Your task to perform on an android device: turn off sleep mode Image 0: 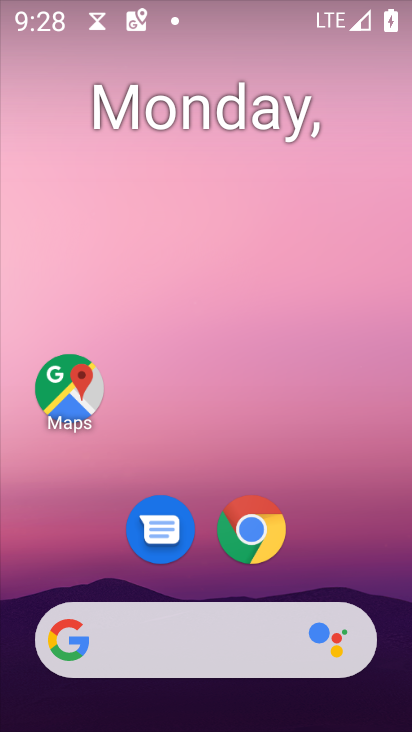
Step 0: drag from (291, 716) to (245, 107)
Your task to perform on an android device: turn off sleep mode Image 1: 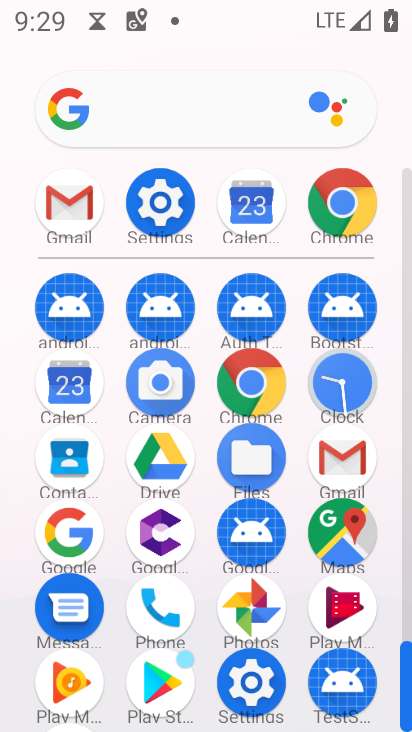
Step 1: click (148, 204)
Your task to perform on an android device: turn off sleep mode Image 2: 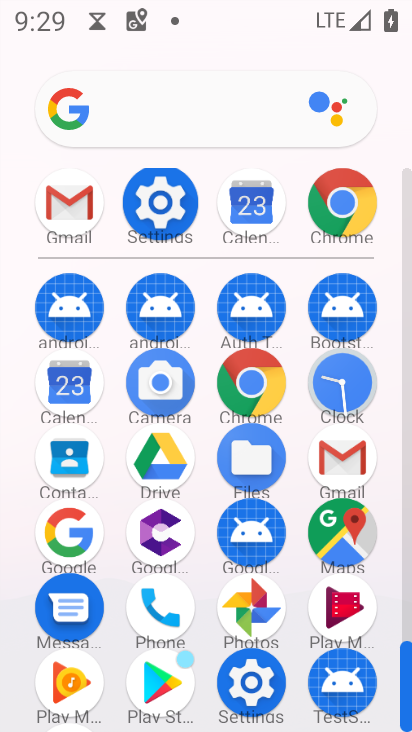
Step 2: click (151, 205)
Your task to perform on an android device: turn off sleep mode Image 3: 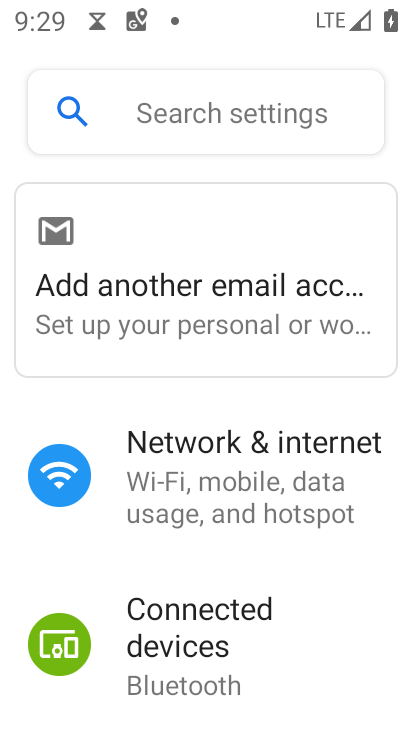
Step 3: drag from (210, 662) to (207, 248)
Your task to perform on an android device: turn off sleep mode Image 4: 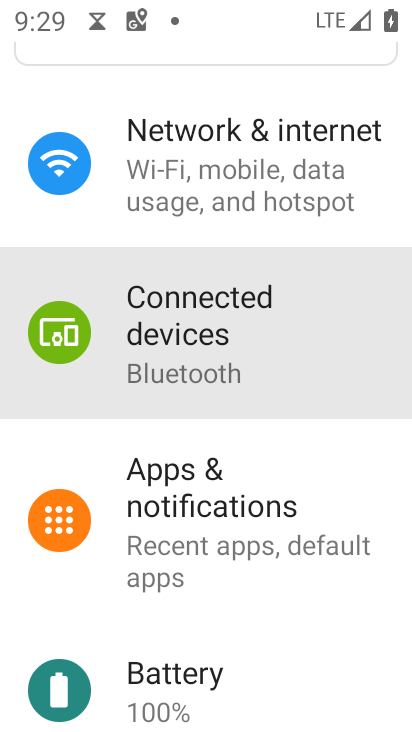
Step 4: drag from (242, 599) to (256, 297)
Your task to perform on an android device: turn off sleep mode Image 5: 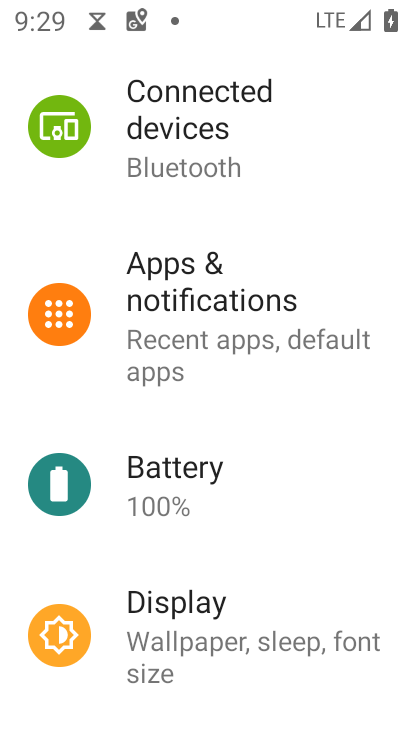
Step 5: drag from (237, 583) to (154, 165)
Your task to perform on an android device: turn off sleep mode Image 6: 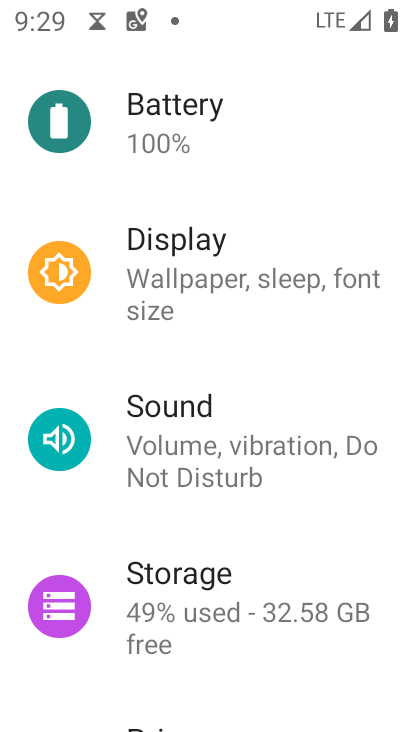
Step 6: drag from (182, 457) to (171, 110)
Your task to perform on an android device: turn off sleep mode Image 7: 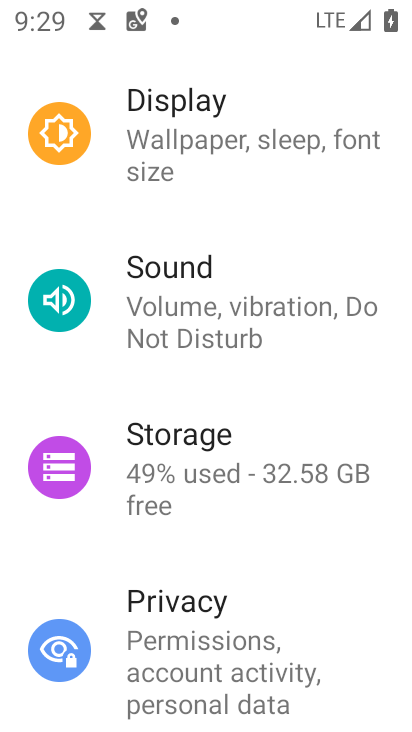
Step 7: drag from (203, 582) to (204, 204)
Your task to perform on an android device: turn off sleep mode Image 8: 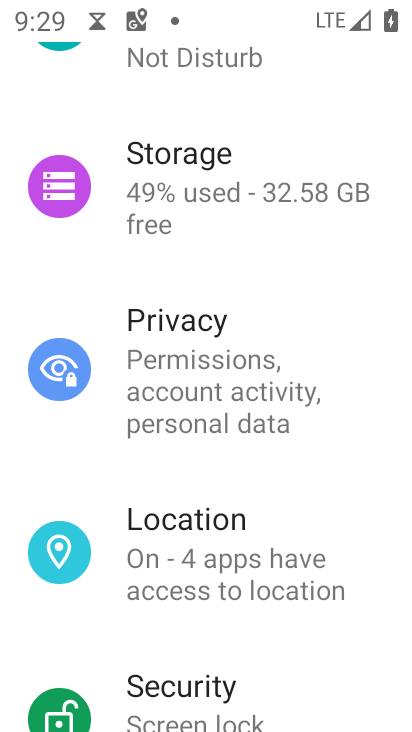
Step 8: drag from (150, 503) to (211, 206)
Your task to perform on an android device: turn off sleep mode Image 9: 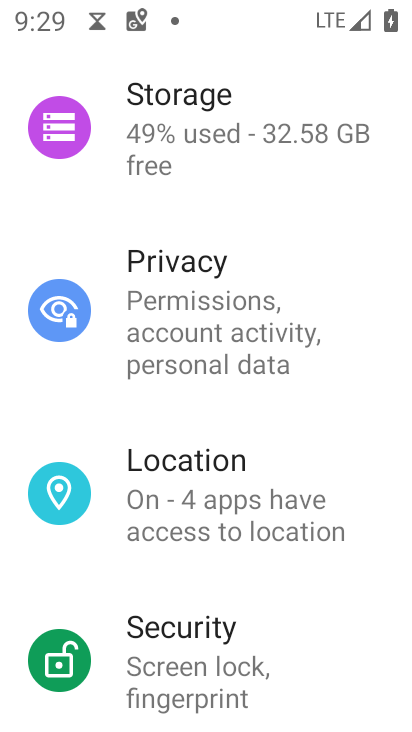
Step 9: drag from (212, 636) to (233, 117)
Your task to perform on an android device: turn off sleep mode Image 10: 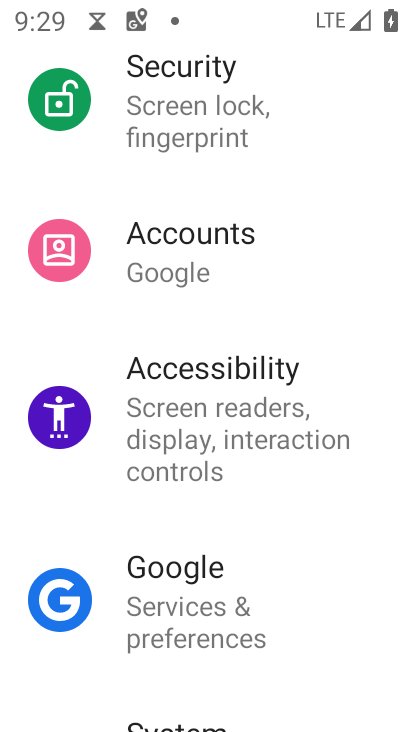
Step 10: drag from (242, 458) to (202, 108)
Your task to perform on an android device: turn off sleep mode Image 11: 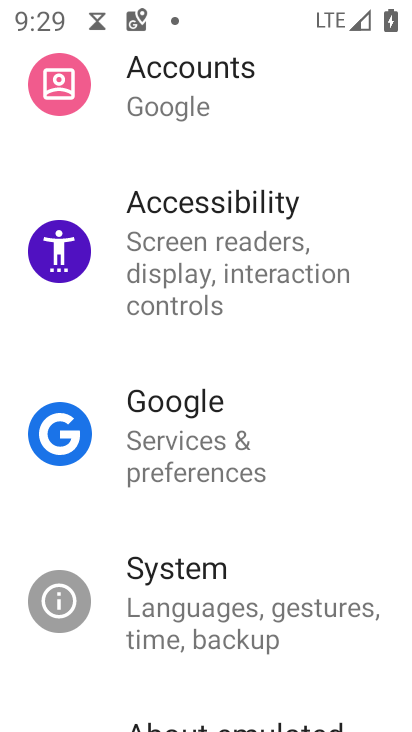
Step 11: drag from (268, 483) to (222, 144)
Your task to perform on an android device: turn off sleep mode Image 12: 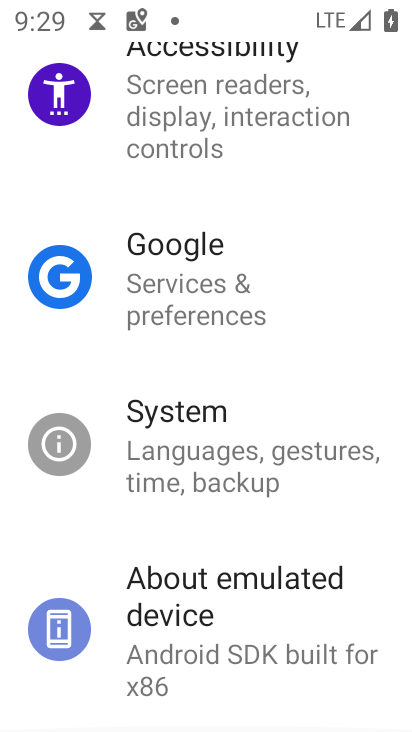
Step 12: drag from (219, 530) to (197, 289)
Your task to perform on an android device: turn off sleep mode Image 13: 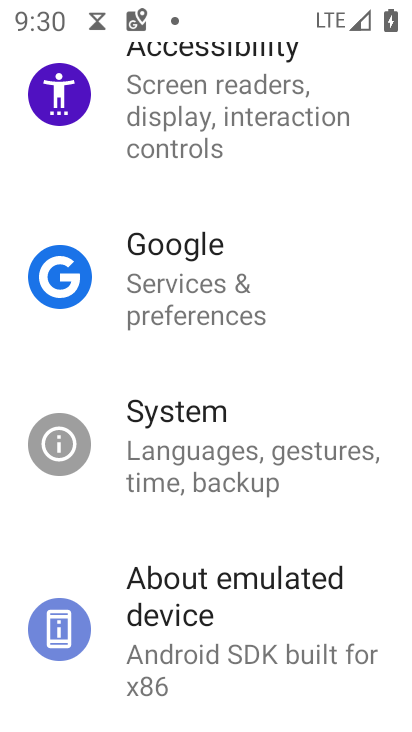
Step 13: drag from (201, 131) to (105, 475)
Your task to perform on an android device: turn off sleep mode Image 14: 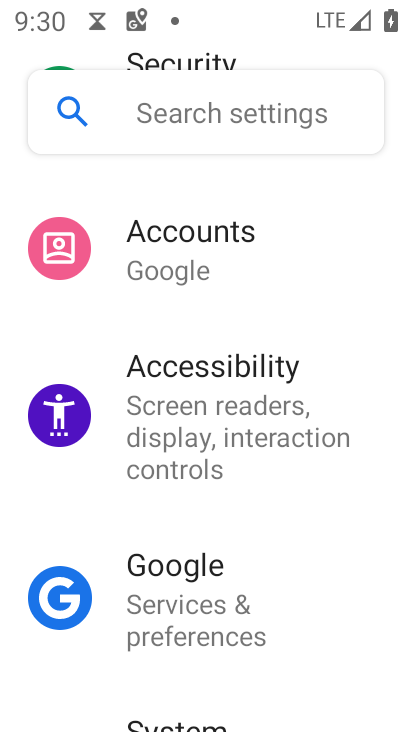
Step 14: drag from (133, 300) to (145, 479)
Your task to perform on an android device: turn off sleep mode Image 15: 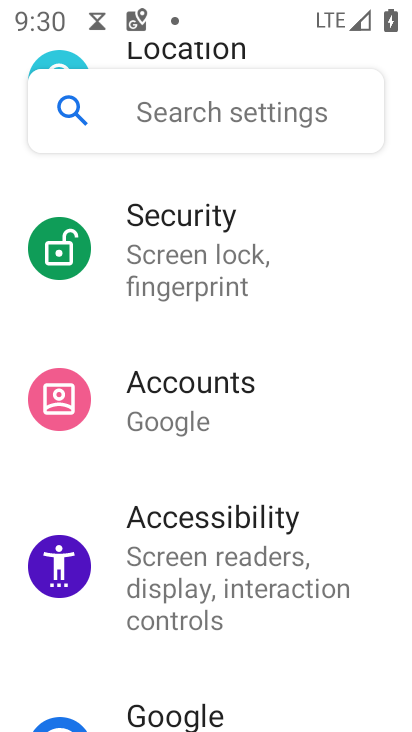
Step 15: drag from (202, 182) to (181, 550)
Your task to perform on an android device: turn off sleep mode Image 16: 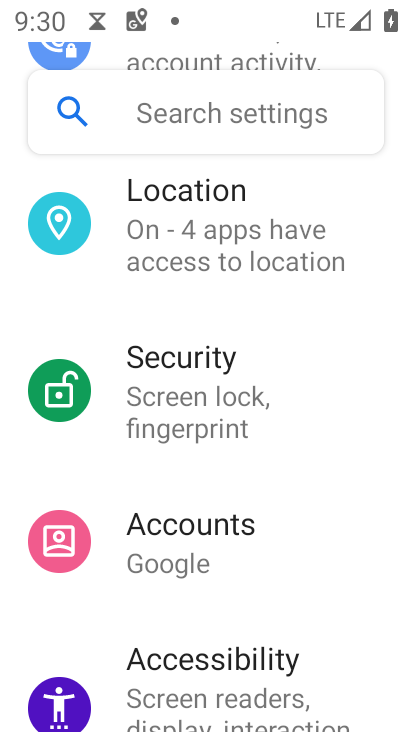
Step 16: drag from (168, 248) to (232, 541)
Your task to perform on an android device: turn off sleep mode Image 17: 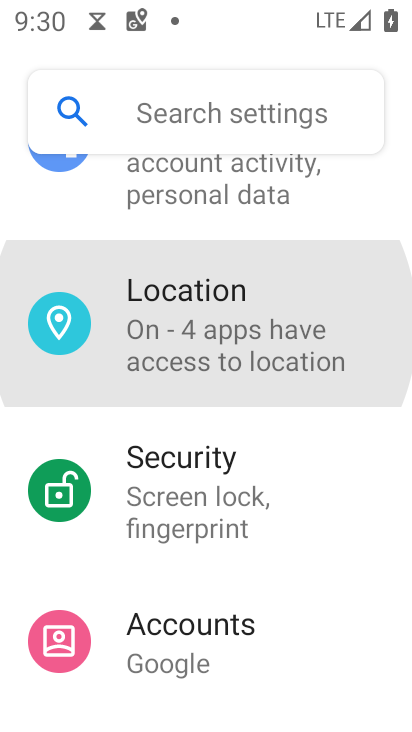
Step 17: drag from (219, 366) to (214, 608)
Your task to perform on an android device: turn off sleep mode Image 18: 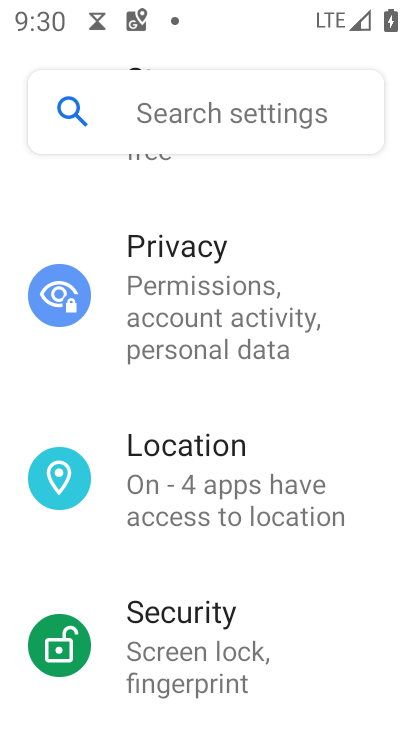
Step 18: drag from (130, 300) to (172, 648)
Your task to perform on an android device: turn off sleep mode Image 19: 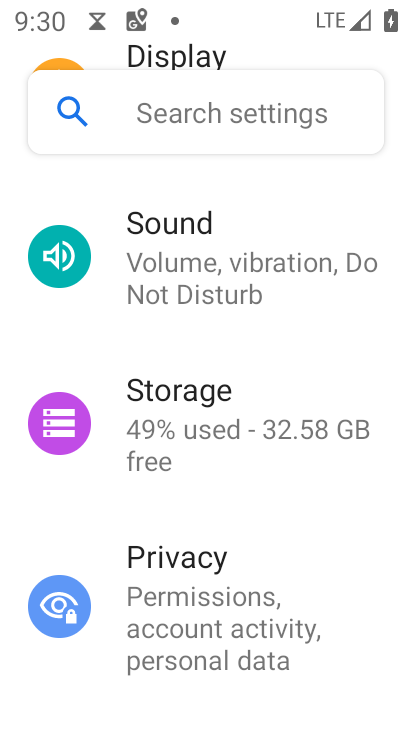
Step 19: drag from (126, 325) to (208, 580)
Your task to perform on an android device: turn off sleep mode Image 20: 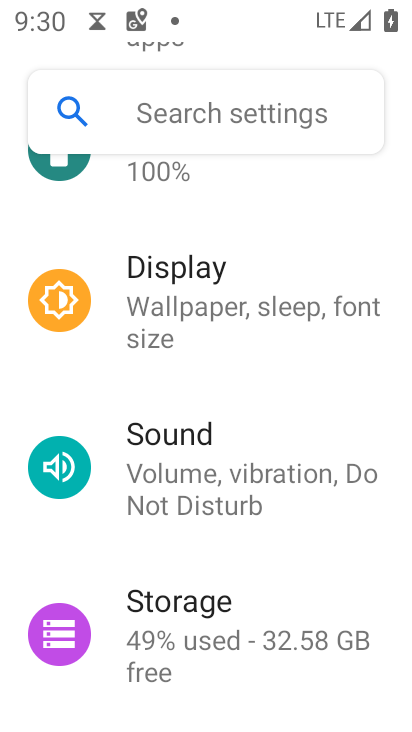
Step 20: drag from (158, 392) to (139, 705)
Your task to perform on an android device: turn off sleep mode Image 21: 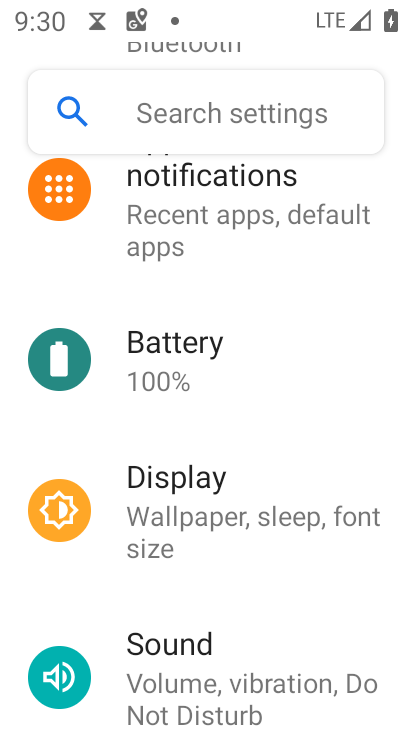
Step 21: drag from (245, 599) to (260, 261)
Your task to perform on an android device: turn off sleep mode Image 22: 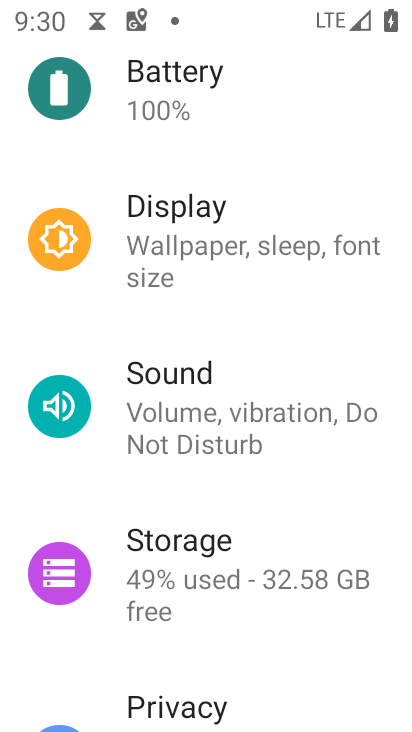
Step 22: drag from (257, 518) to (256, 133)
Your task to perform on an android device: turn off sleep mode Image 23: 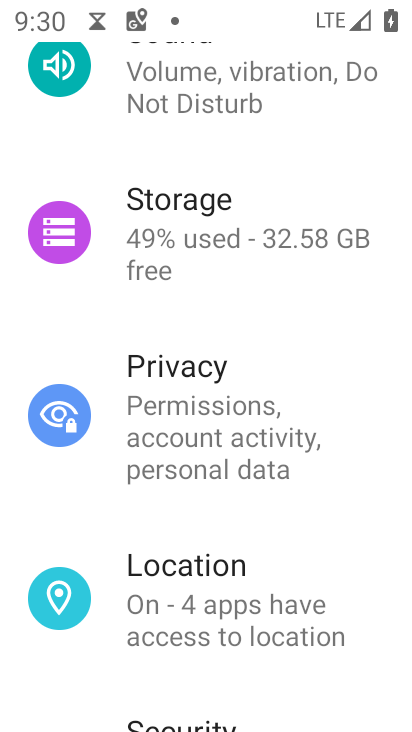
Step 23: drag from (176, 236) to (211, 491)
Your task to perform on an android device: turn off sleep mode Image 24: 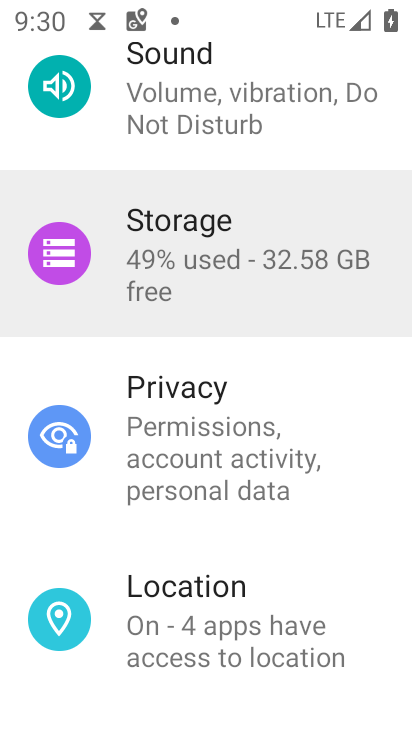
Step 24: drag from (189, 228) to (202, 703)
Your task to perform on an android device: turn off sleep mode Image 25: 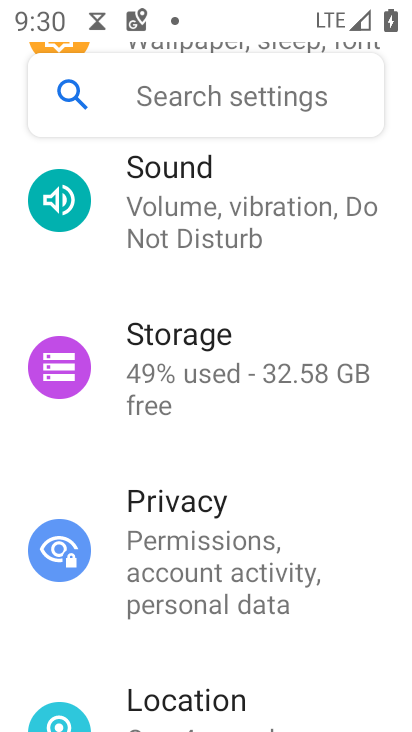
Step 25: drag from (194, 405) to (184, 566)
Your task to perform on an android device: turn off sleep mode Image 26: 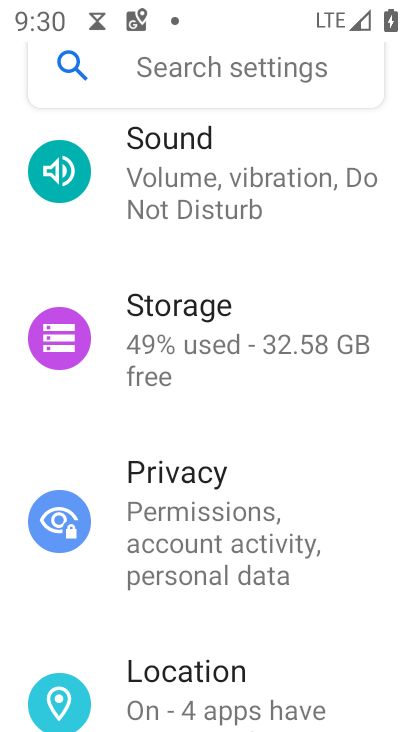
Step 26: drag from (207, 647) to (221, 251)
Your task to perform on an android device: turn off sleep mode Image 27: 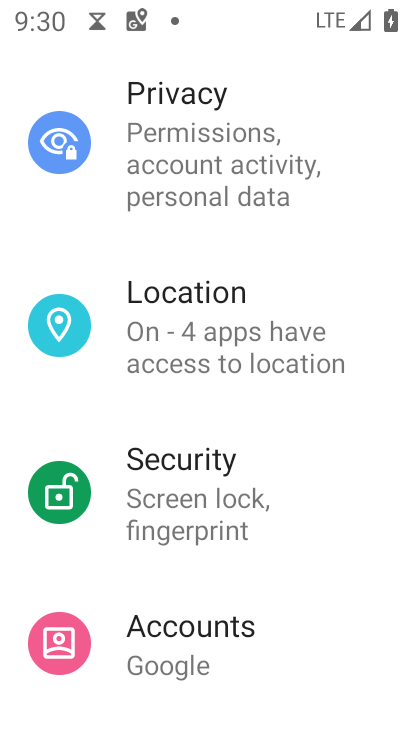
Step 27: drag from (261, 518) to (270, 195)
Your task to perform on an android device: turn off sleep mode Image 28: 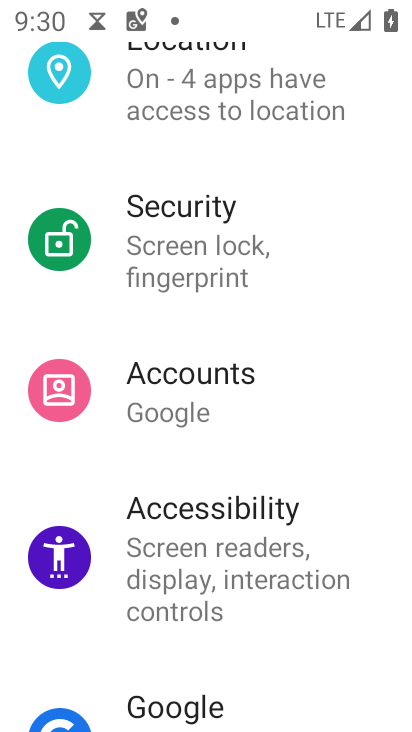
Step 28: drag from (216, 374) to (312, 77)
Your task to perform on an android device: turn off sleep mode Image 29: 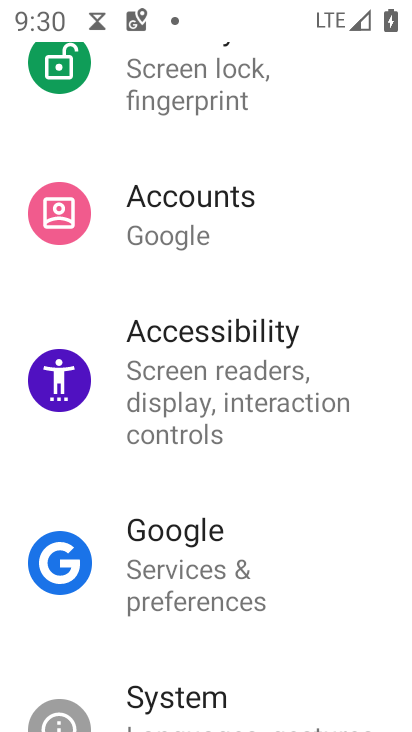
Step 29: drag from (205, 226) to (158, 694)
Your task to perform on an android device: turn off sleep mode Image 30: 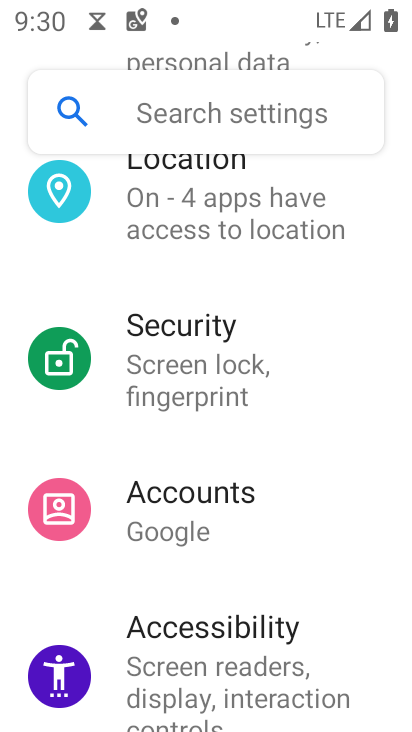
Step 30: drag from (232, 247) to (198, 601)
Your task to perform on an android device: turn off sleep mode Image 31: 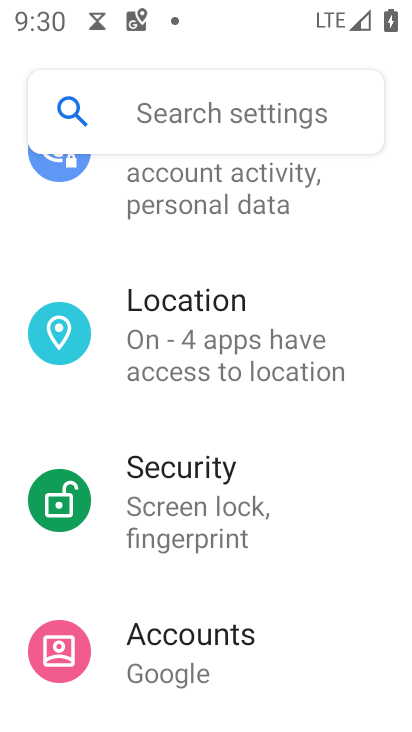
Step 31: drag from (149, 387) to (157, 554)
Your task to perform on an android device: turn off sleep mode Image 32: 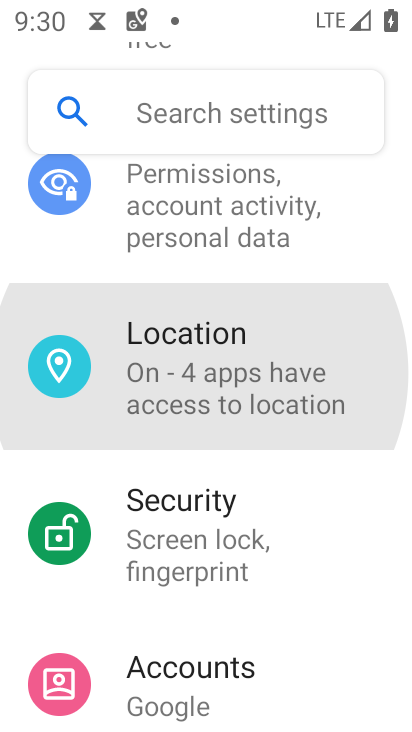
Step 32: drag from (160, 254) to (161, 656)
Your task to perform on an android device: turn off sleep mode Image 33: 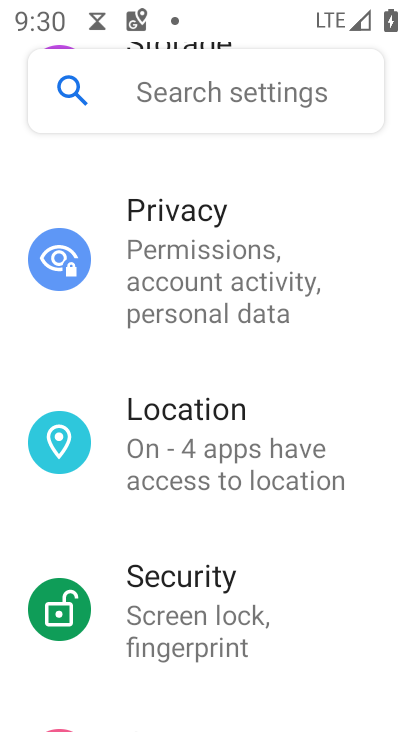
Step 33: drag from (171, 272) to (206, 576)
Your task to perform on an android device: turn off sleep mode Image 34: 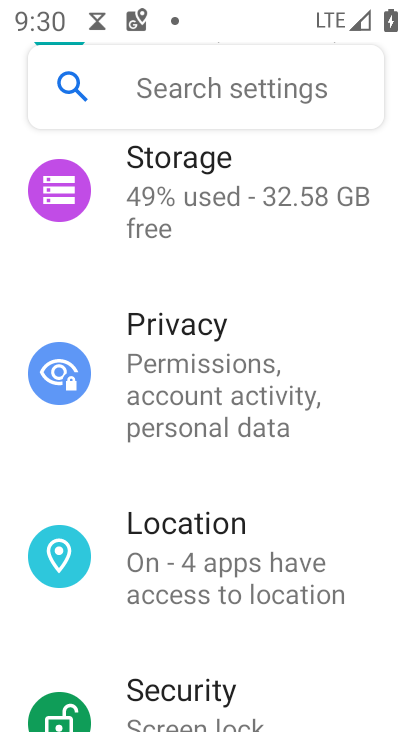
Step 34: drag from (216, 304) to (216, 697)
Your task to perform on an android device: turn off sleep mode Image 35: 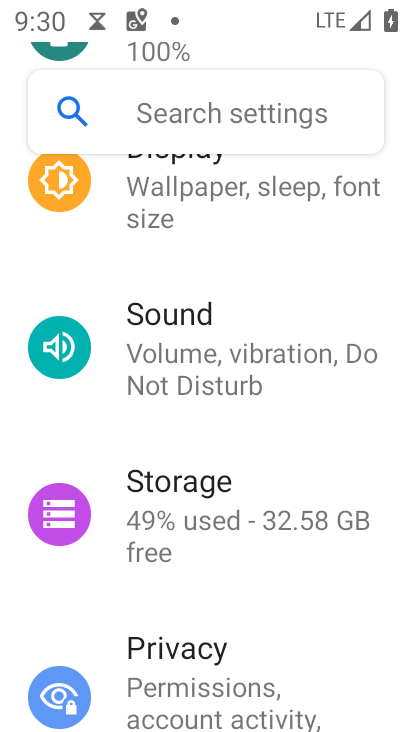
Step 35: drag from (196, 672) to (223, 723)
Your task to perform on an android device: turn off sleep mode Image 36: 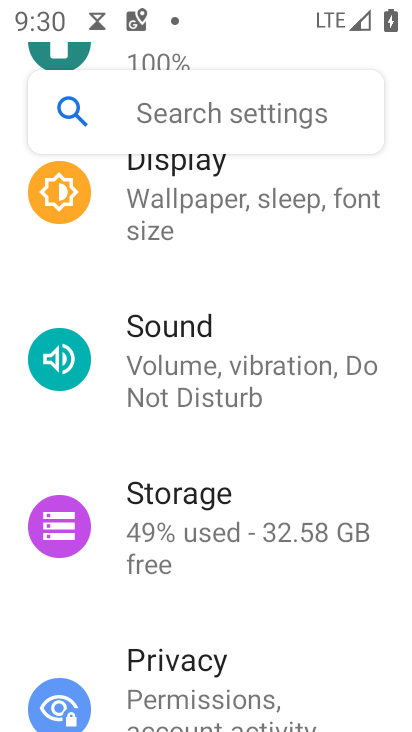
Step 36: click (207, 208)
Your task to perform on an android device: turn off sleep mode Image 37: 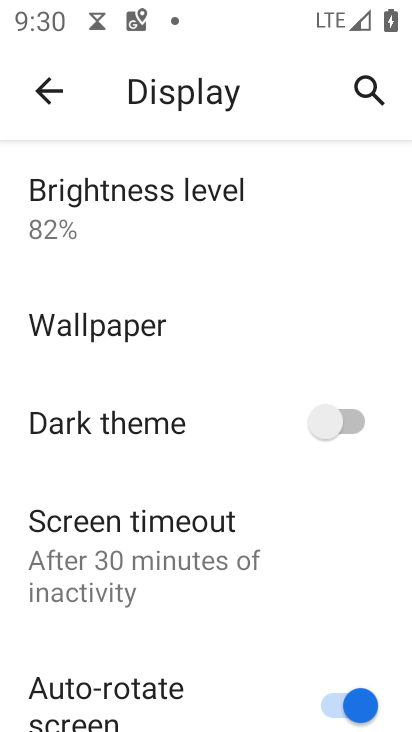
Step 37: task complete